Your task to perform on an android device: Do I have any events this weekend? Image 0: 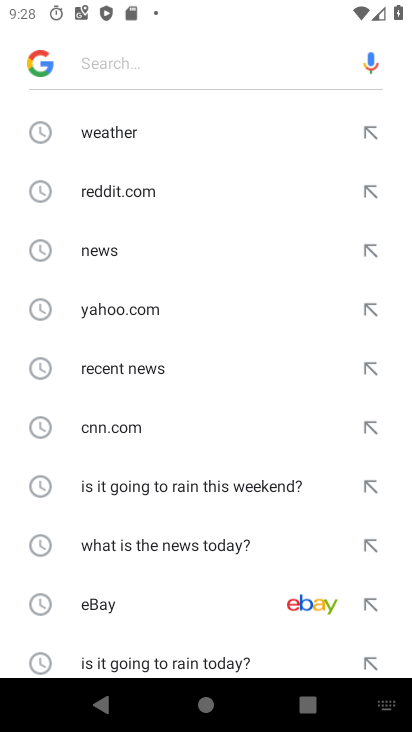
Step 0: press home button
Your task to perform on an android device: Do I have any events this weekend? Image 1: 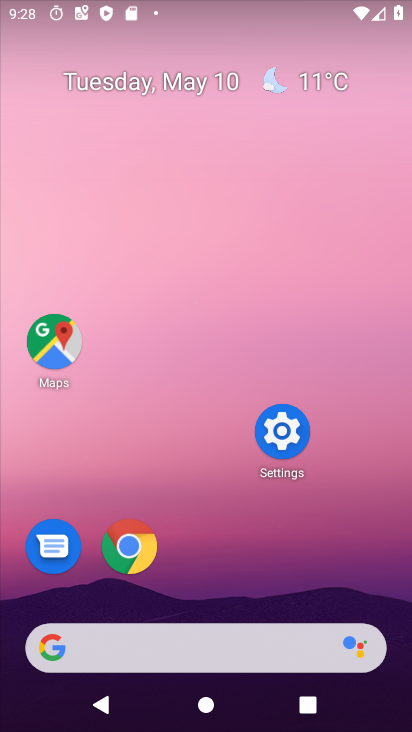
Step 1: drag from (201, 545) to (279, 58)
Your task to perform on an android device: Do I have any events this weekend? Image 2: 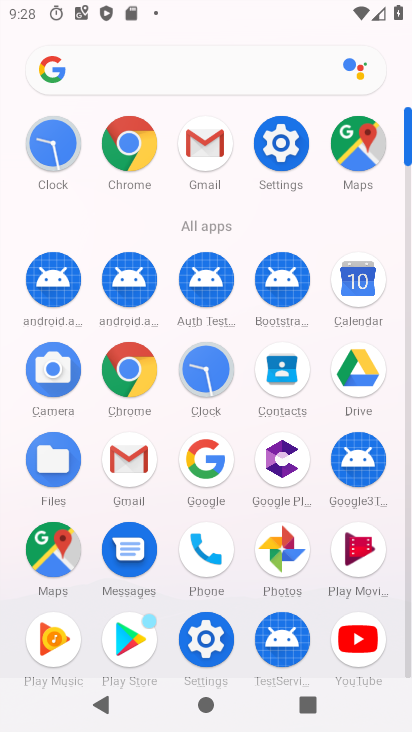
Step 2: click (350, 284)
Your task to perform on an android device: Do I have any events this weekend? Image 3: 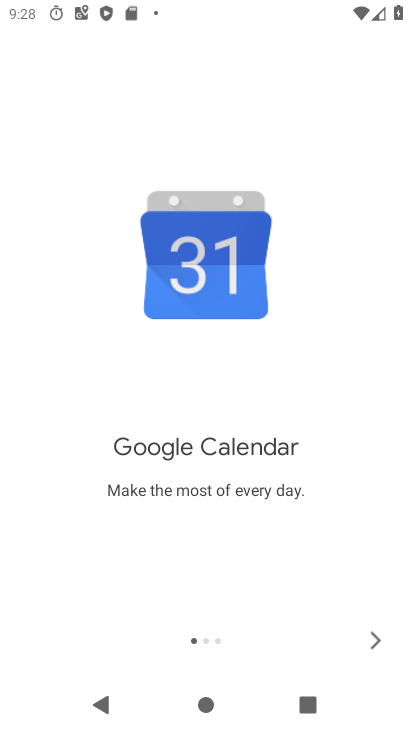
Step 3: click (372, 638)
Your task to perform on an android device: Do I have any events this weekend? Image 4: 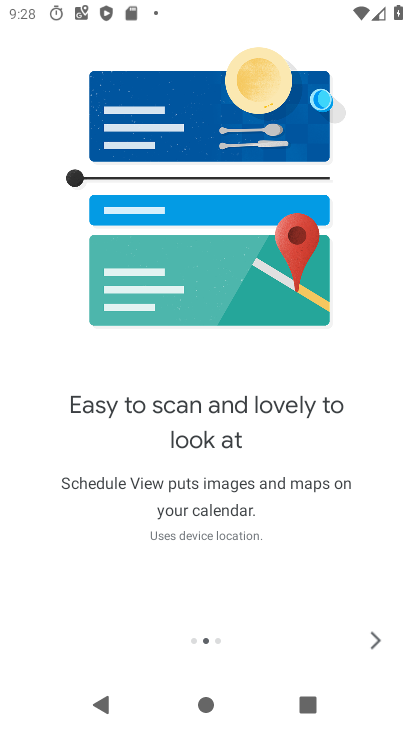
Step 4: click (372, 640)
Your task to perform on an android device: Do I have any events this weekend? Image 5: 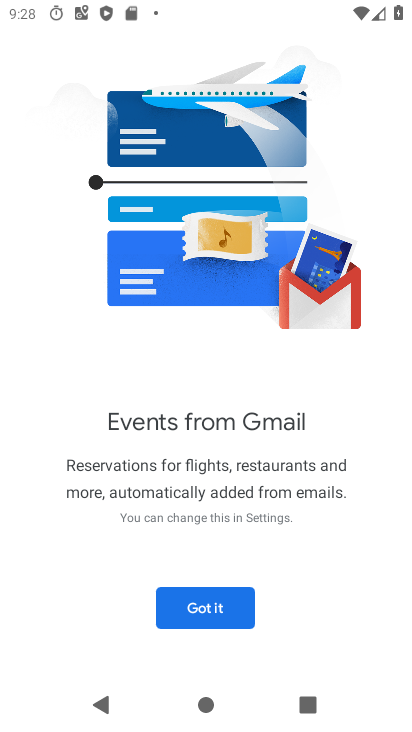
Step 5: click (212, 606)
Your task to perform on an android device: Do I have any events this weekend? Image 6: 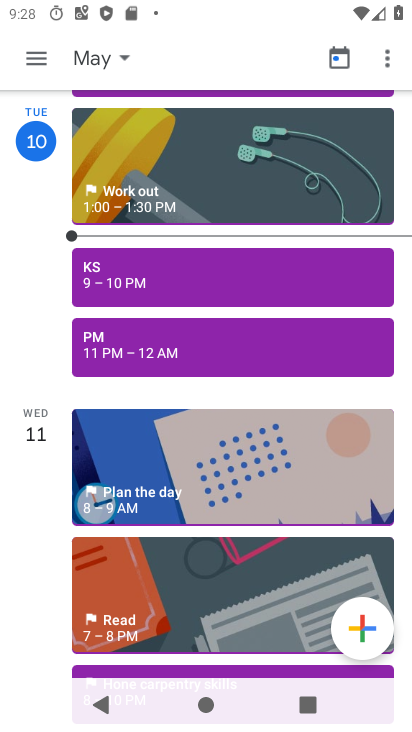
Step 6: click (126, 57)
Your task to perform on an android device: Do I have any events this weekend? Image 7: 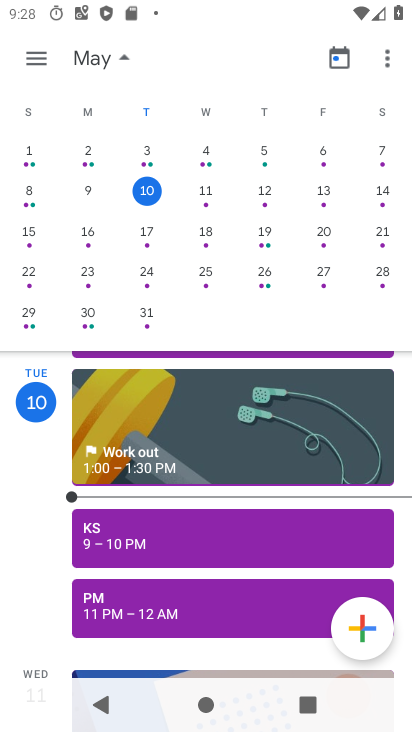
Step 7: drag from (182, 573) to (305, 48)
Your task to perform on an android device: Do I have any events this weekend? Image 8: 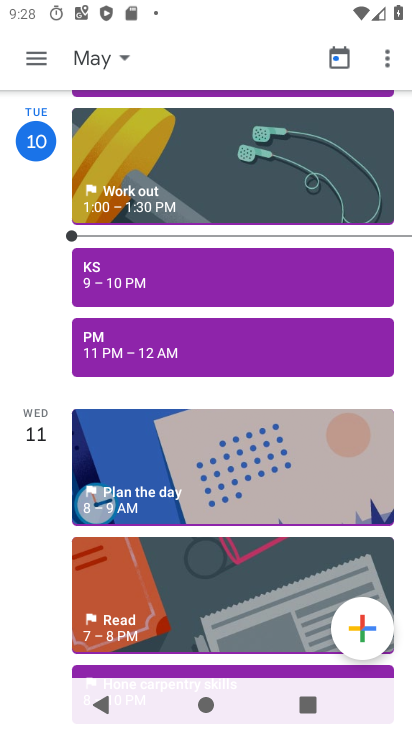
Step 8: drag from (229, 556) to (304, 91)
Your task to perform on an android device: Do I have any events this weekend? Image 9: 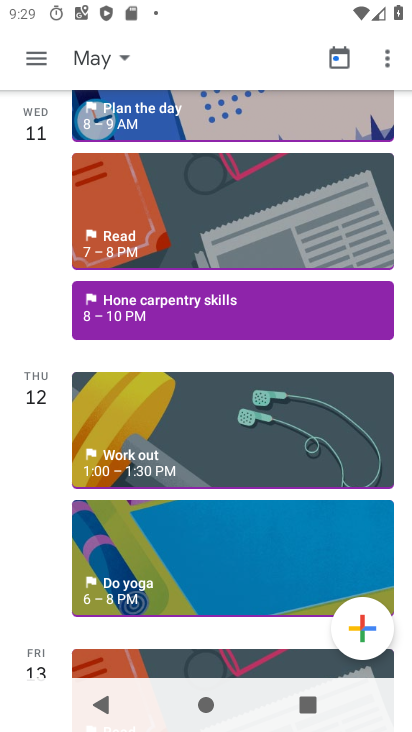
Step 9: click (125, 569)
Your task to perform on an android device: Do I have any events this weekend? Image 10: 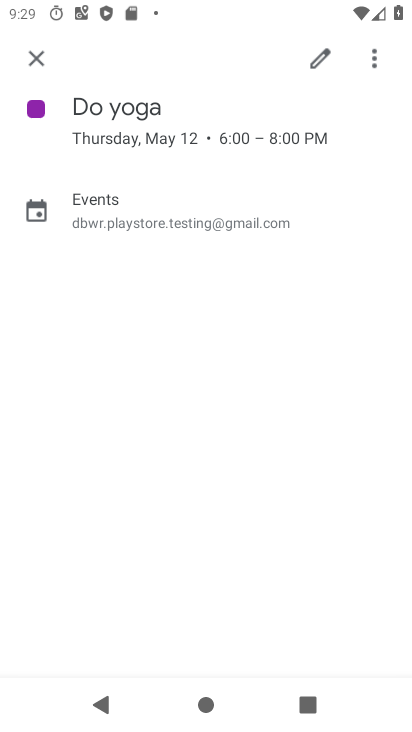
Step 10: task complete